Your task to perform on an android device: delete the emails in spam in the gmail app Image 0: 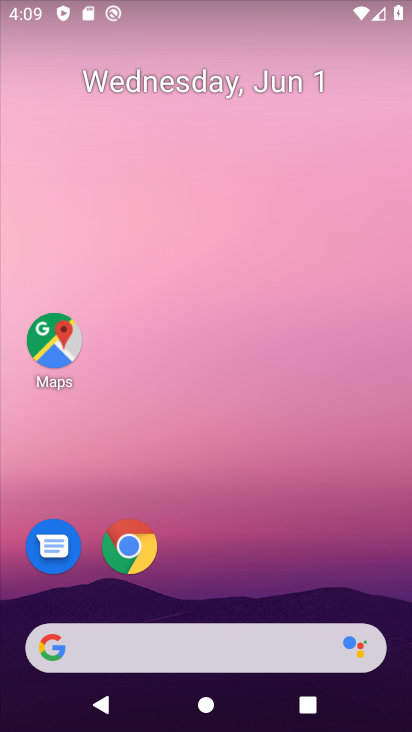
Step 0: drag from (286, 500) to (226, 198)
Your task to perform on an android device: delete the emails in spam in the gmail app Image 1: 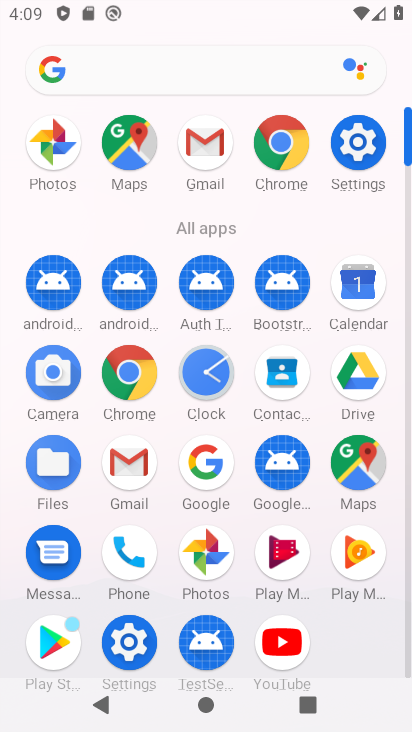
Step 1: click (205, 152)
Your task to perform on an android device: delete the emails in spam in the gmail app Image 2: 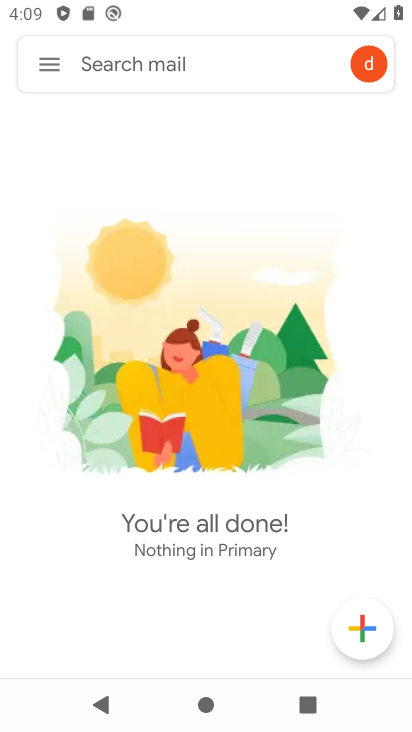
Step 2: click (45, 65)
Your task to perform on an android device: delete the emails in spam in the gmail app Image 3: 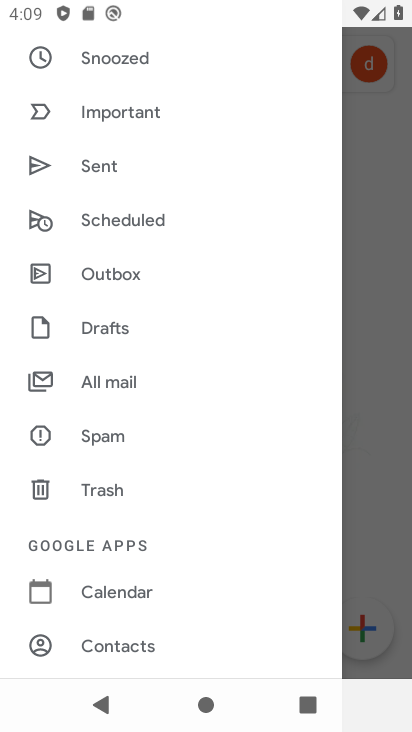
Step 3: click (98, 440)
Your task to perform on an android device: delete the emails in spam in the gmail app Image 4: 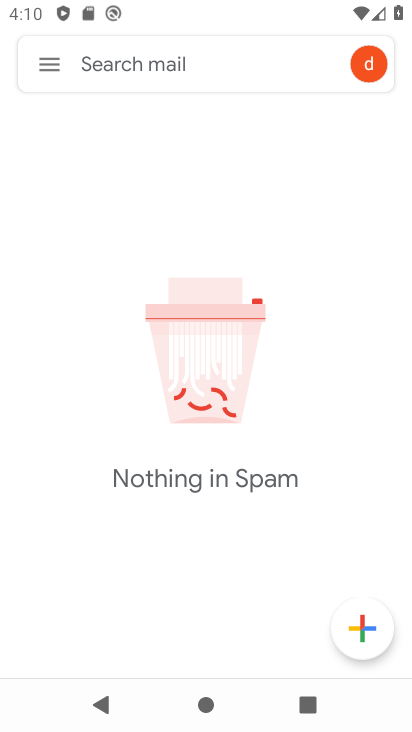
Step 4: task complete